Your task to perform on an android device: toggle notifications settings in the gmail app Image 0: 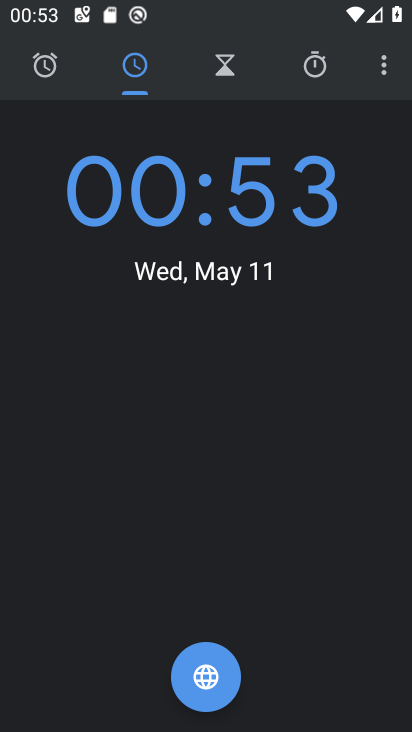
Step 0: press home button
Your task to perform on an android device: toggle notifications settings in the gmail app Image 1: 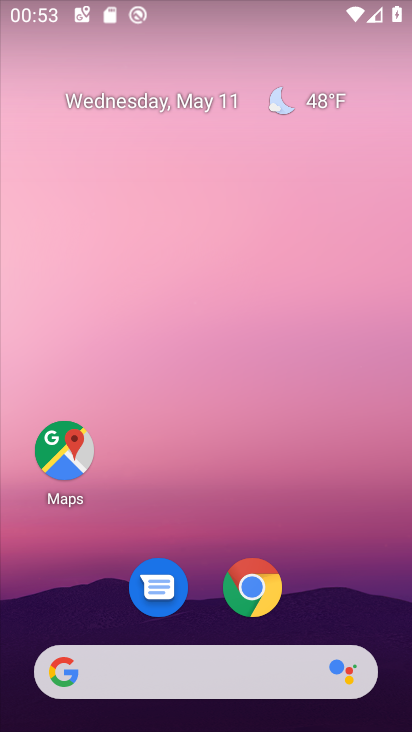
Step 1: drag from (338, 540) to (205, 111)
Your task to perform on an android device: toggle notifications settings in the gmail app Image 2: 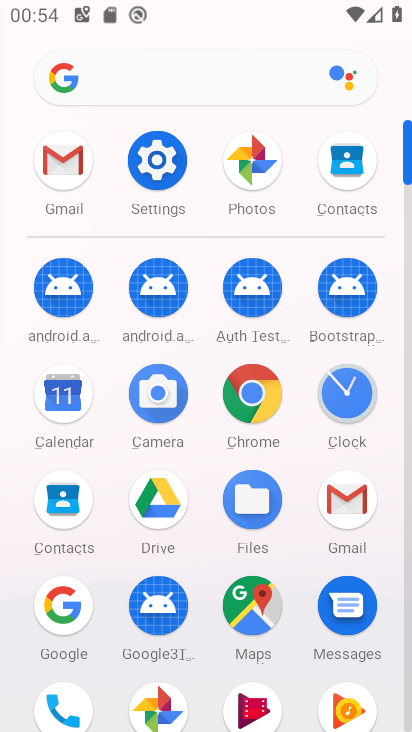
Step 2: click (326, 483)
Your task to perform on an android device: toggle notifications settings in the gmail app Image 3: 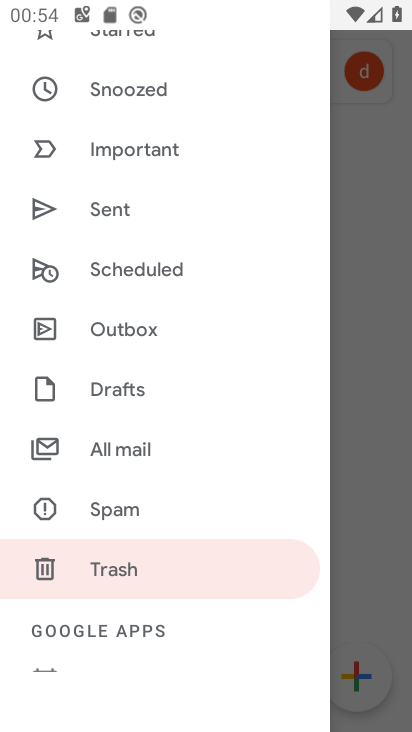
Step 3: drag from (158, 576) to (73, 313)
Your task to perform on an android device: toggle notifications settings in the gmail app Image 4: 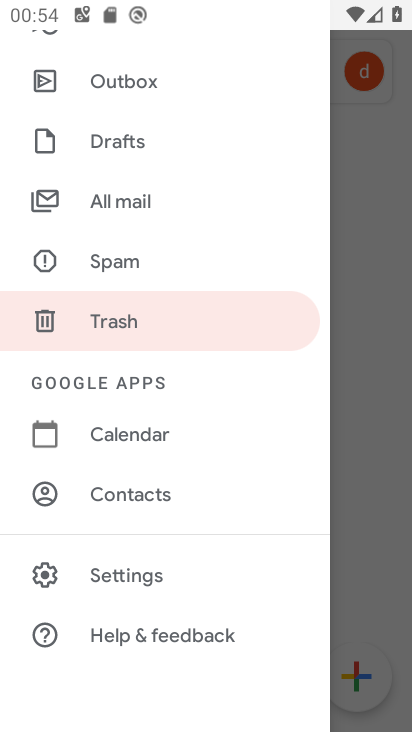
Step 4: click (177, 566)
Your task to perform on an android device: toggle notifications settings in the gmail app Image 5: 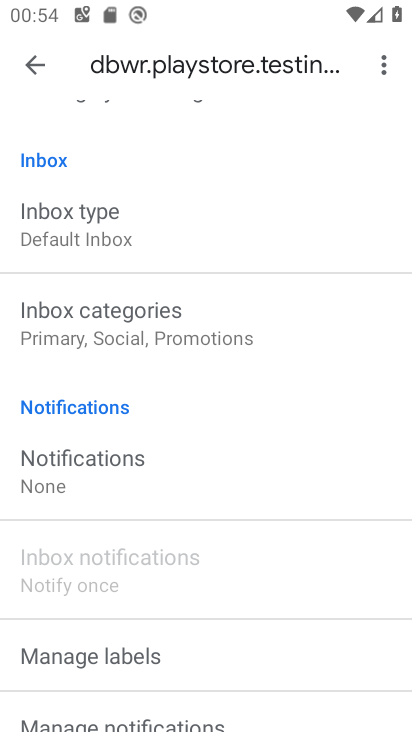
Step 5: drag from (200, 572) to (117, 382)
Your task to perform on an android device: toggle notifications settings in the gmail app Image 6: 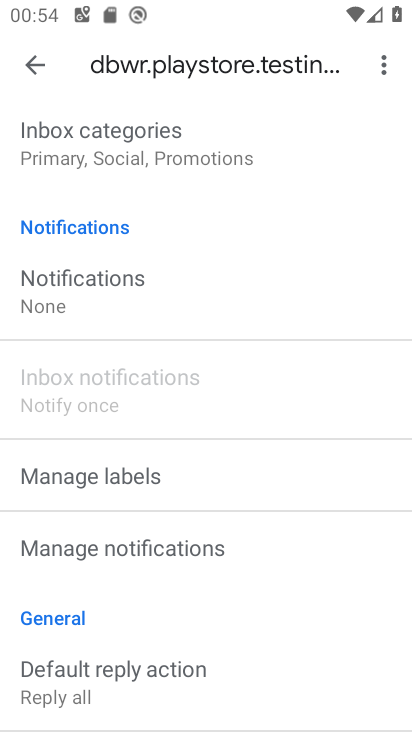
Step 6: click (203, 531)
Your task to perform on an android device: toggle notifications settings in the gmail app Image 7: 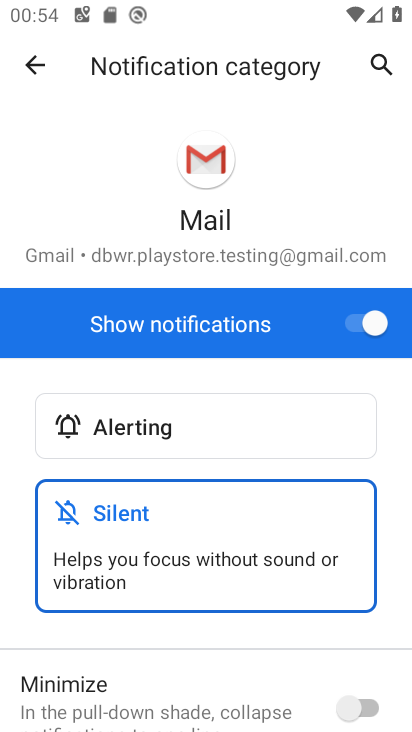
Step 7: click (375, 322)
Your task to perform on an android device: toggle notifications settings in the gmail app Image 8: 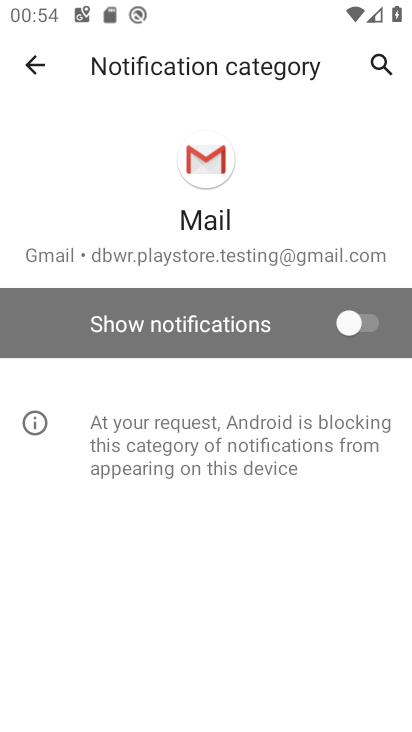
Step 8: task complete